Your task to perform on an android device: Search for pizza restaurants on Maps Image 0: 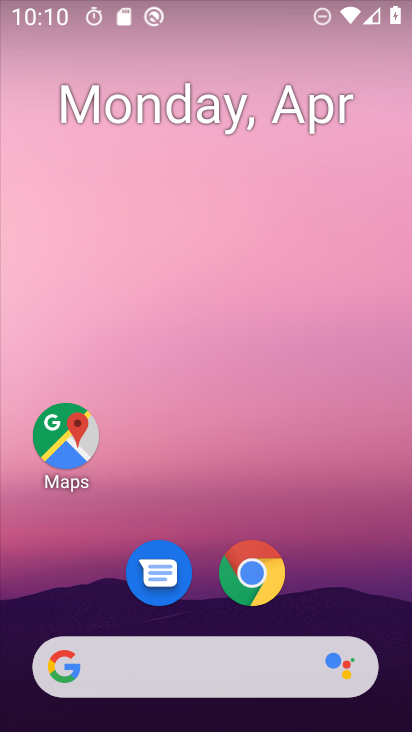
Step 0: drag from (330, 433) to (335, 99)
Your task to perform on an android device: Search for pizza restaurants on Maps Image 1: 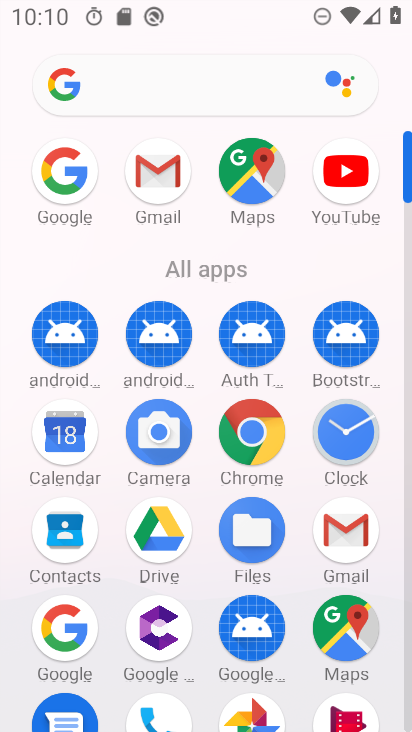
Step 1: click (255, 153)
Your task to perform on an android device: Search for pizza restaurants on Maps Image 2: 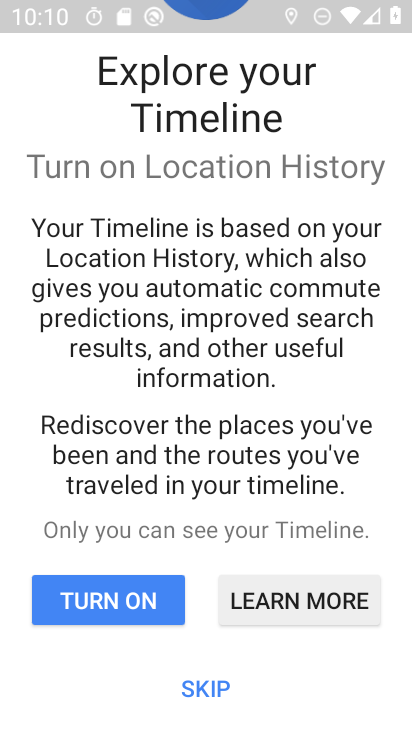
Step 2: click (230, 694)
Your task to perform on an android device: Search for pizza restaurants on Maps Image 3: 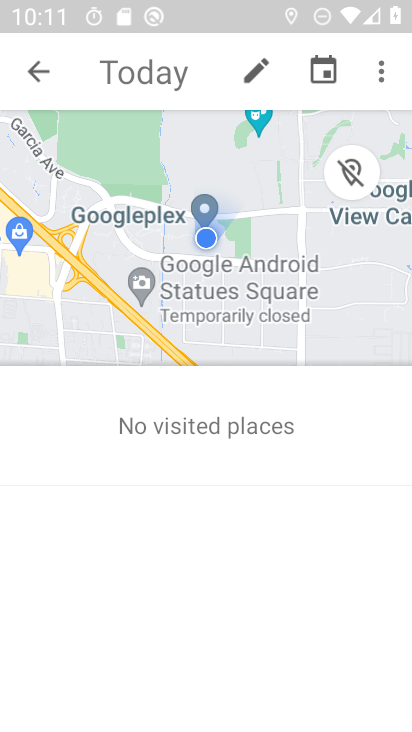
Step 3: click (50, 78)
Your task to perform on an android device: Search for pizza restaurants on Maps Image 4: 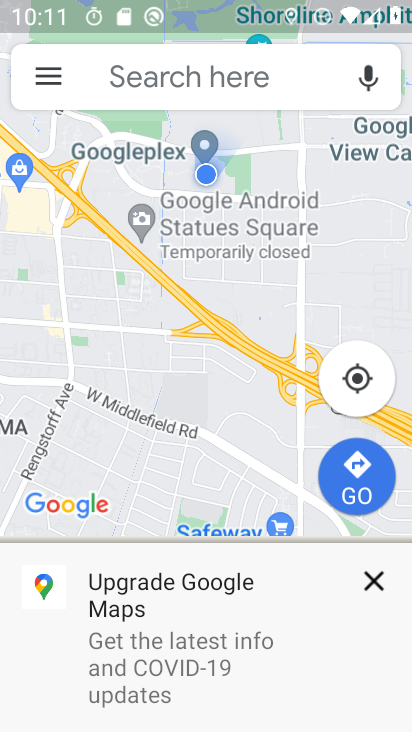
Step 4: click (231, 94)
Your task to perform on an android device: Search for pizza restaurants on Maps Image 5: 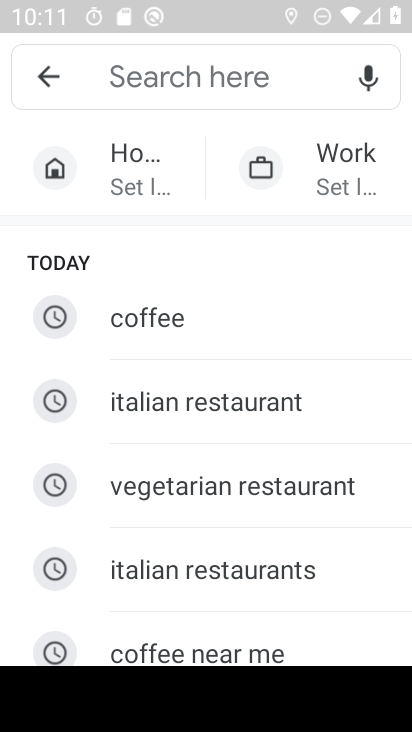
Step 5: type "pizza resturents"
Your task to perform on an android device: Search for pizza restaurants on Maps Image 6: 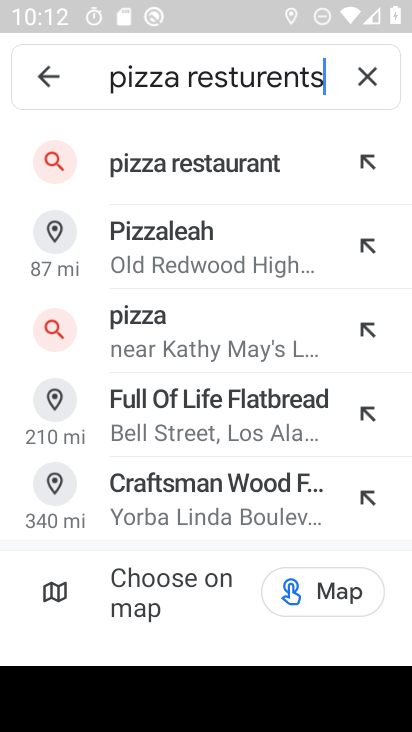
Step 6: drag from (160, 528) to (199, 220)
Your task to perform on an android device: Search for pizza restaurants on Maps Image 7: 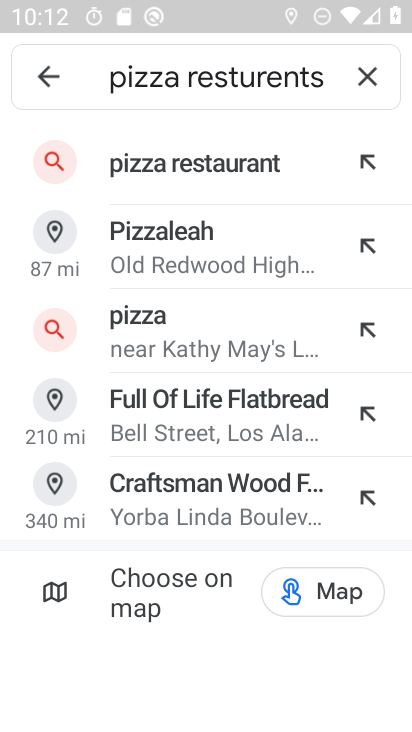
Step 7: click (186, 166)
Your task to perform on an android device: Search for pizza restaurants on Maps Image 8: 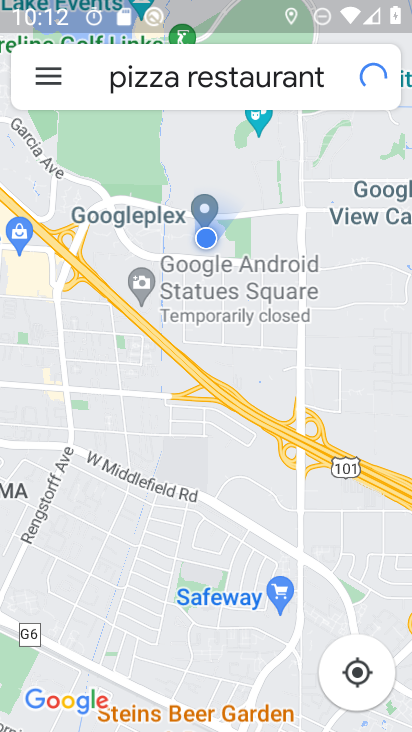
Step 8: task complete